Your task to perform on an android device: Open Reddit.com Image 0: 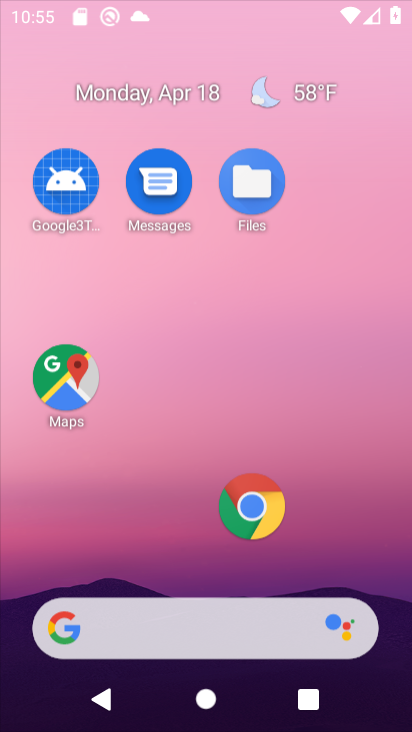
Step 0: click (70, 387)
Your task to perform on an android device: Open Reddit.com Image 1: 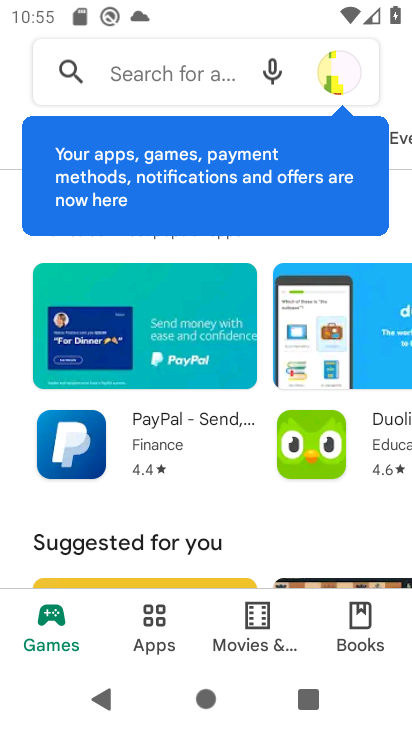
Step 1: press home button
Your task to perform on an android device: Open Reddit.com Image 2: 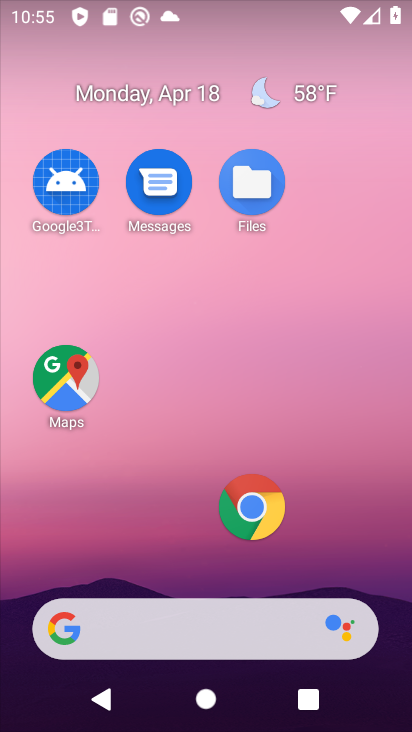
Step 2: click (243, 524)
Your task to perform on an android device: Open Reddit.com Image 3: 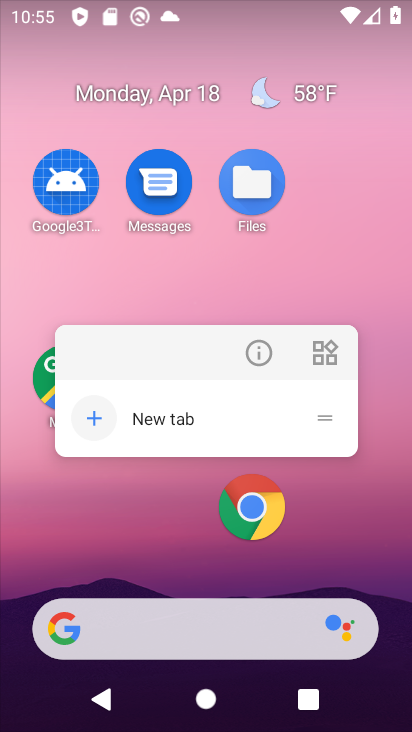
Step 3: click (243, 523)
Your task to perform on an android device: Open Reddit.com Image 4: 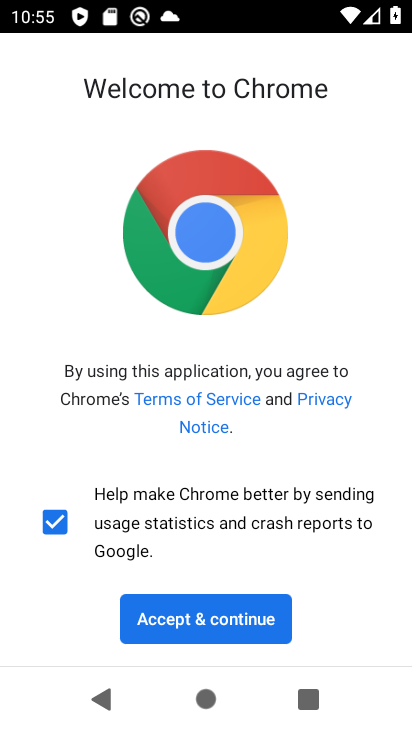
Step 4: click (214, 612)
Your task to perform on an android device: Open Reddit.com Image 5: 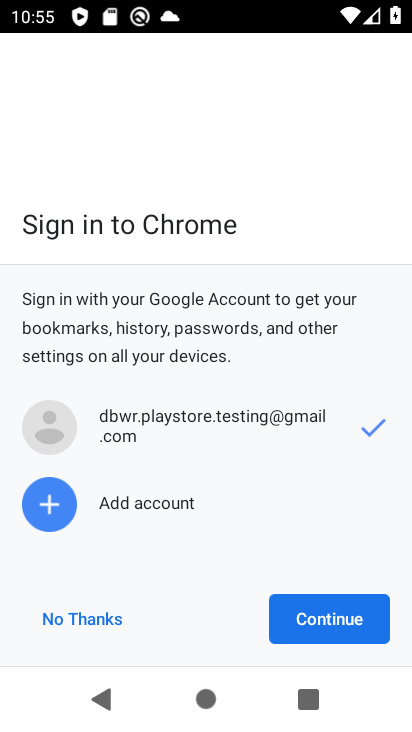
Step 5: click (293, 623)
Your task to perform on an android device: Open Reddit.com Image 6: 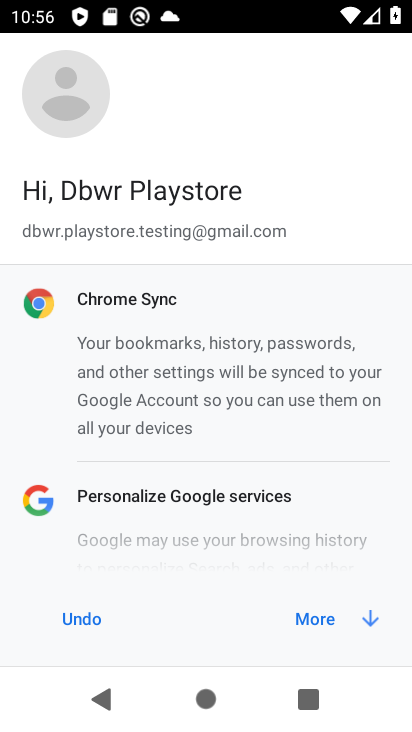
Step 6: click (343, 607)
Your task to perform on an android device: Open Reddit.com Image 7: 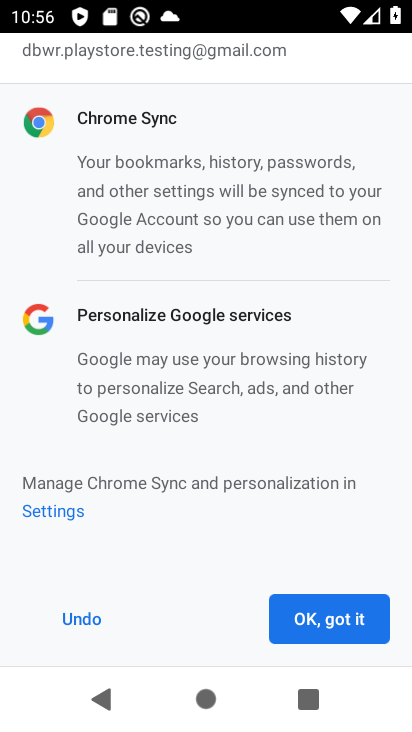
Step 7: click (343, 611)
Your task to perform on an android device: Open Reddit.com Image 8: 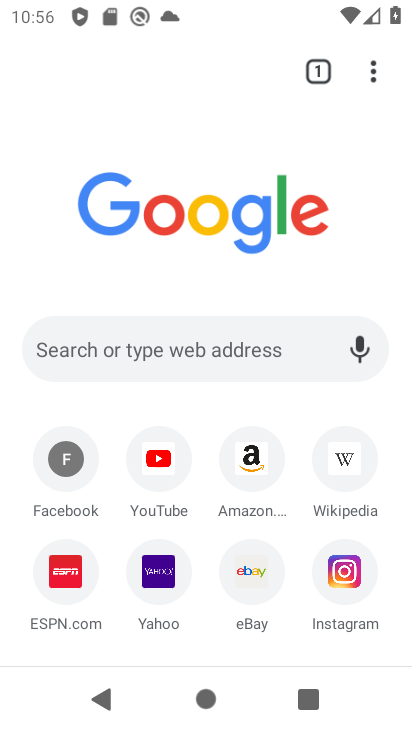
Step 8: click (100, 349)
Your task to perform on an android device: Open Reddit.com Image 9: 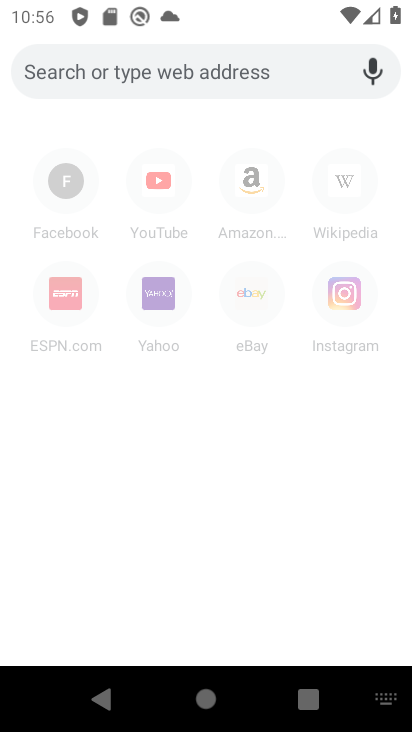
Step 9: type "reddit com"
Your task to perform on an android device: Open Reddit.com Image 10: 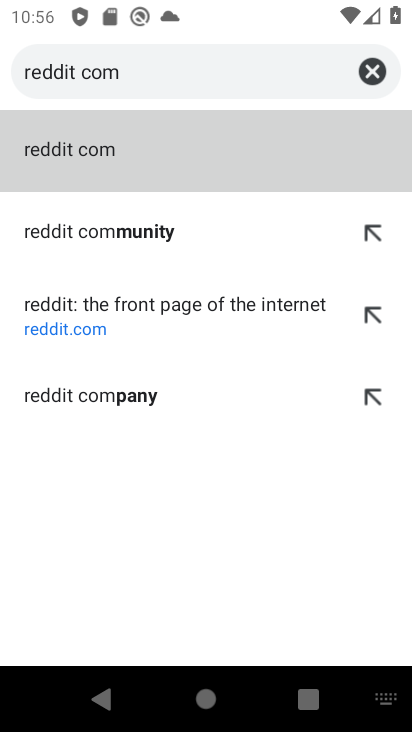
Step 10: click (119, 304)
Your task to perform on an android device: Open Reddit.com Image 11: 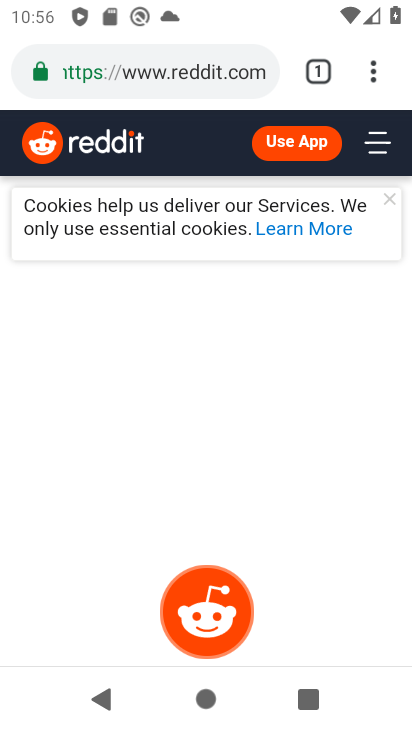
Step 11: task complete